Your task to perform on an android device: turn on improve location accuracy Image 0: 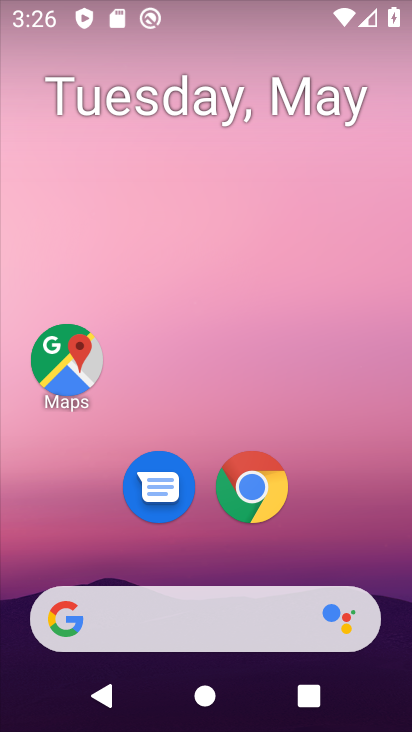
Step 0: drag from (230, 550) to (318, 75)
Your task to perform on an android device: turn on improve location accuracy Image 1: 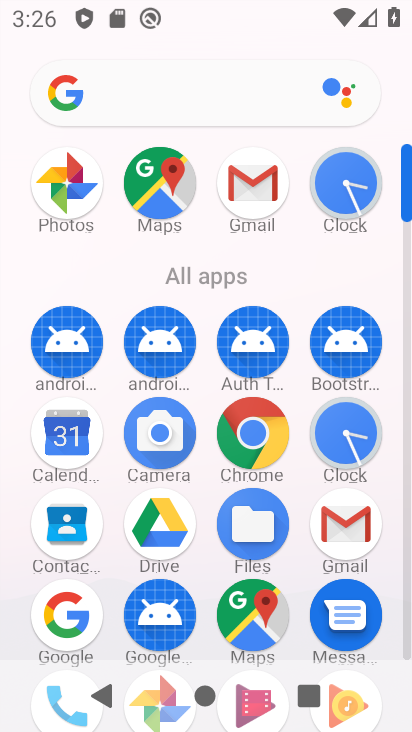
Step 1: drag from (217, 498) to (283, 7)
Your task to perform on an android device: turn on improve location accuracy Image 2: 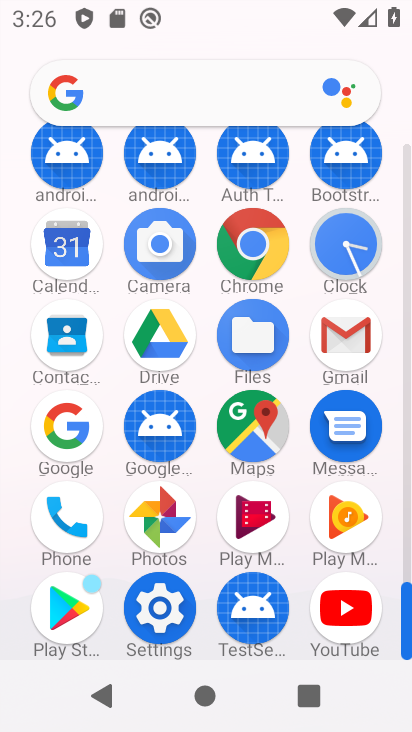
Step 2: click (160, 621)
Your task to perform on an android device: turn on improve location accuracy Image 3: 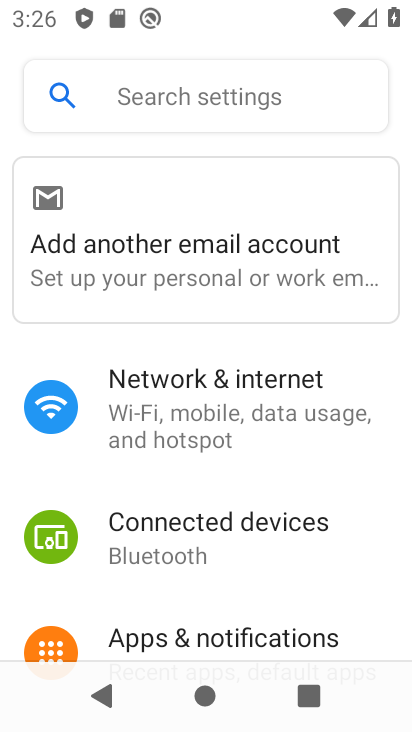
Step 3: drag from (229, 578) to (322, 238)
Your task to perform on an android device: turn on improve location accuracy Image 4: 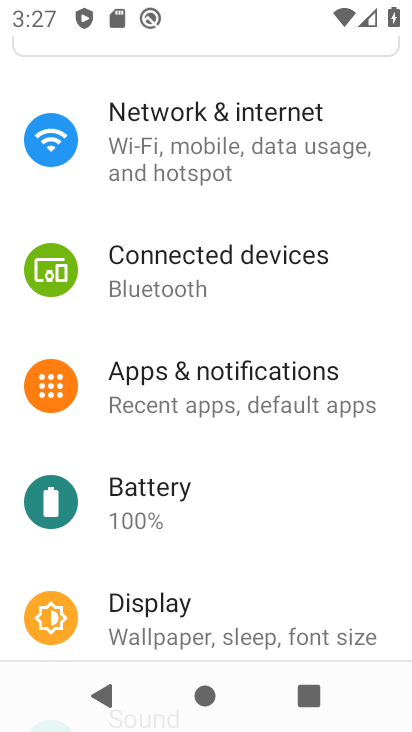
Step 4: drag from (243, 542) to (279, 331)
Your task to perform on an android device: turn on improve location accuracy Image 5: 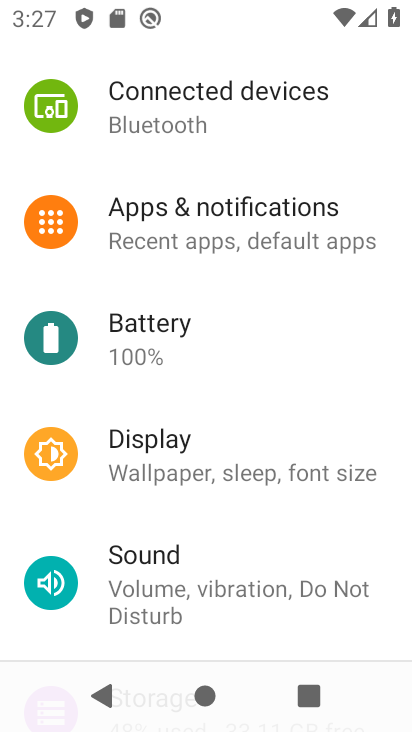
Step 5: drag from (175, 568) to (234, 325)
Your task to perform on an android device: turn on improve location accuracy Image 6: 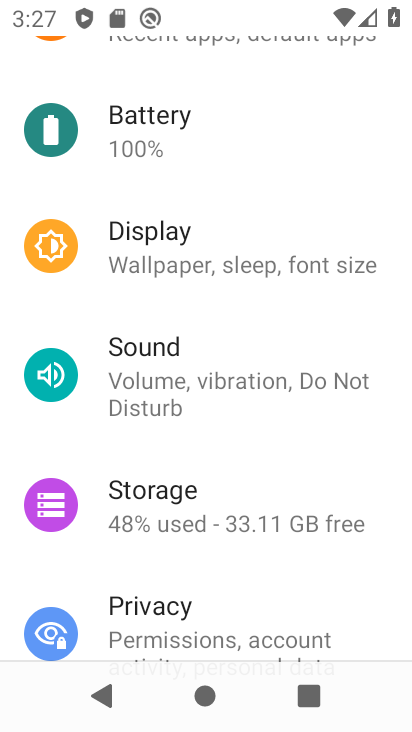
Step 6: drag from (208, 530) to (263, 296)
Your task to perform on an android device: turn on improve location accuracy Image 7: 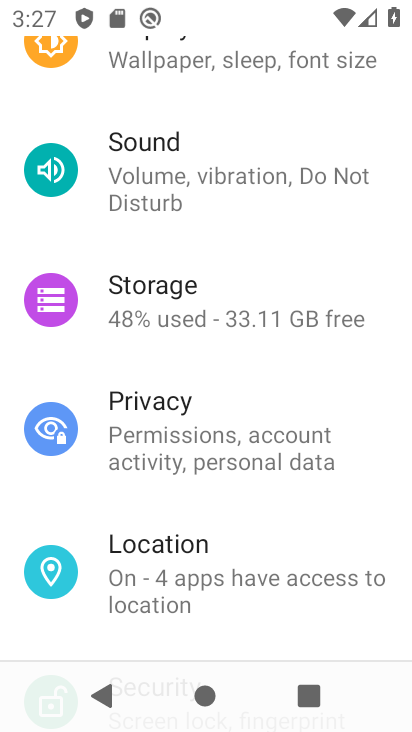
Step 7: click (182, 565)
Your task to perform on an android device: turn on improve location accuracy Image 8: 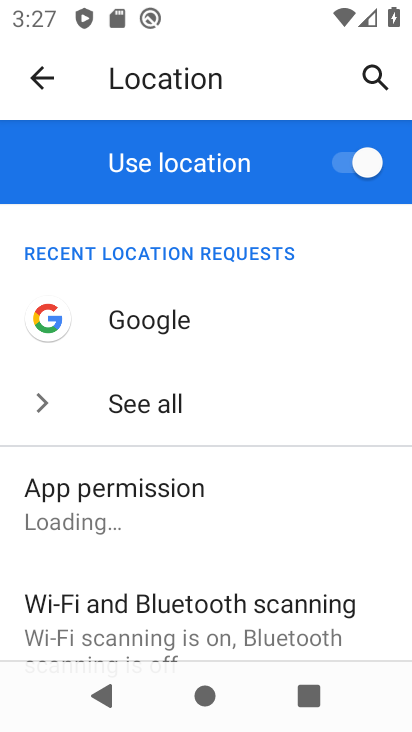
Step 8: drag from (175, 613) to (226, 390)
Your task to perform on an android device: turn on improve location accuracy Image 9: 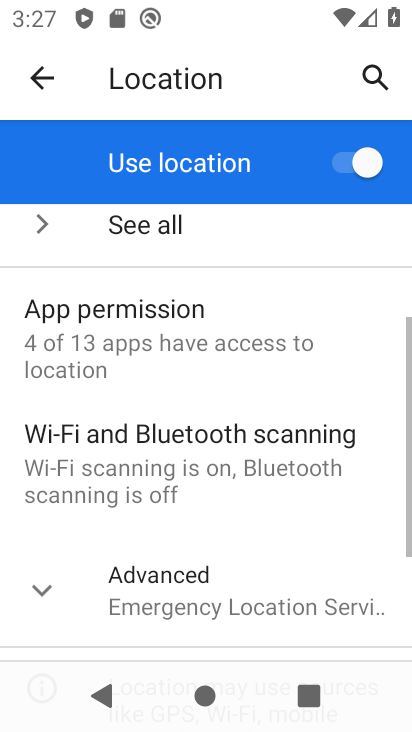
Step 9: click (163, 582)
Your task to perform on an android device: turn on improve location accuracy Image 10: 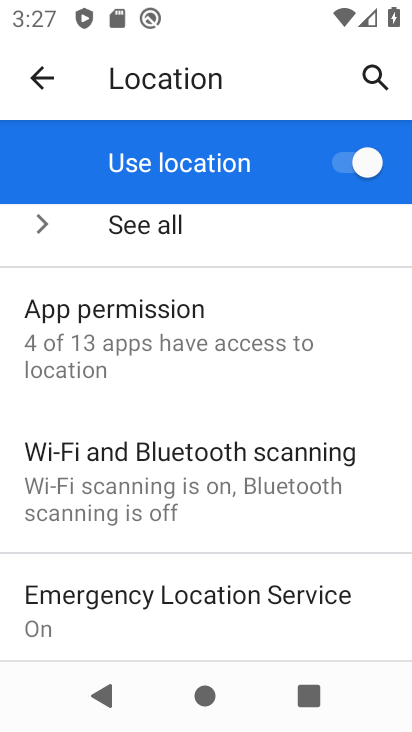
Step 10: drag from (224, 565) to (290, 270)
Your task to perform on an android device: turn on improve location accuracy Image 11: 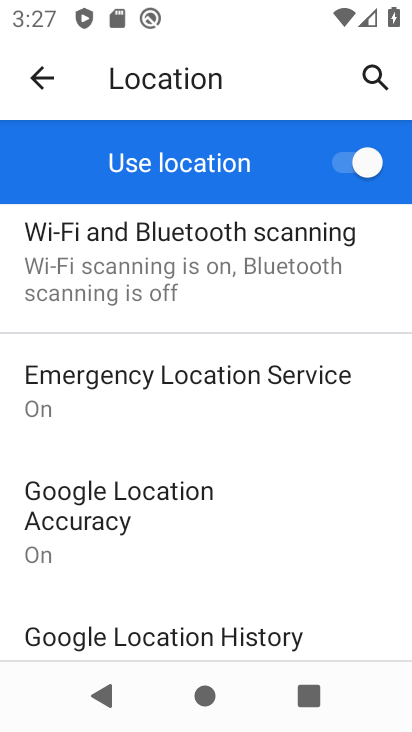
Step 11: drag from (205, 557) to (249, 282)
Your task to perform on an android device: turn on improve location accuracy Image 12: 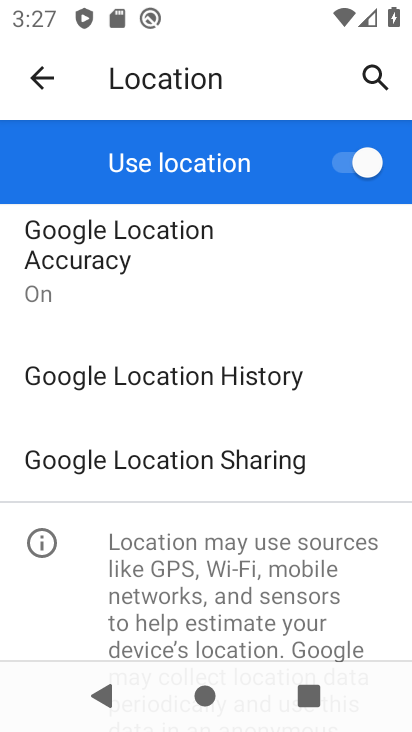
Step 12: click (144, 259)
Your task to perform on an android device: turn on improve location accuracy Image 13: 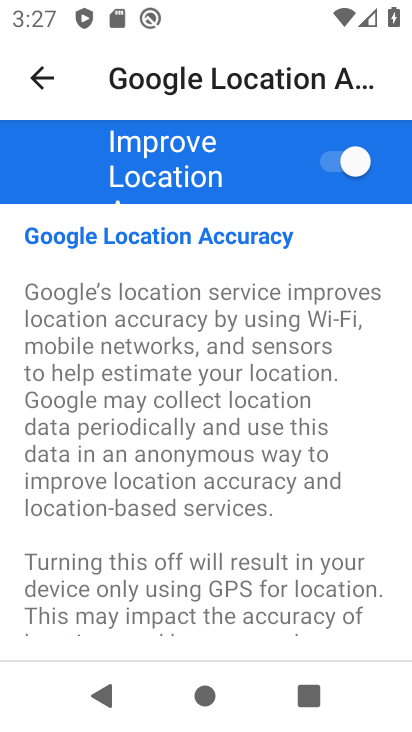
Step 13: task complete